Your task to perform on an android device: Search for shimano brake pads on Walmart Image 0: 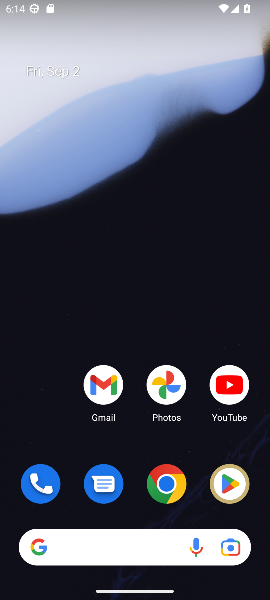
Step 0: click (160, 488)
Your task to perform on an android device: Search for shimano brake pads on Walmart Image 1: 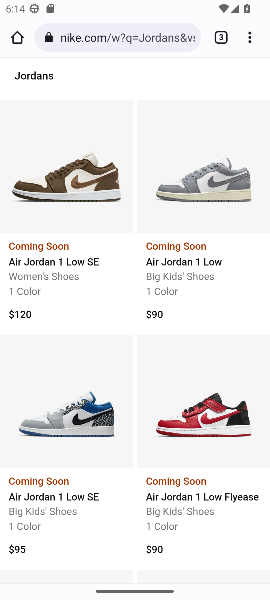
Step 1: click (168, 35)
Your task to perform on an android device: Search for shimano brake pads on Walmart Image 2: 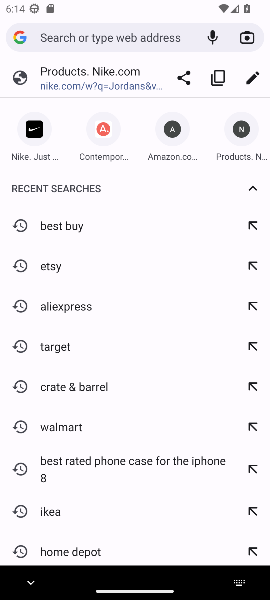
Step 2: type "Walmart"
Your task to perform on an android device: Search for shimano brake pads on Walmart Image 3: 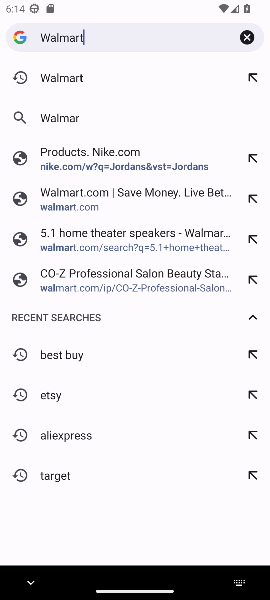
Step 3: press enter
Your task to perform on an android device: Search for shimano brake pads on Walmart Image 4: 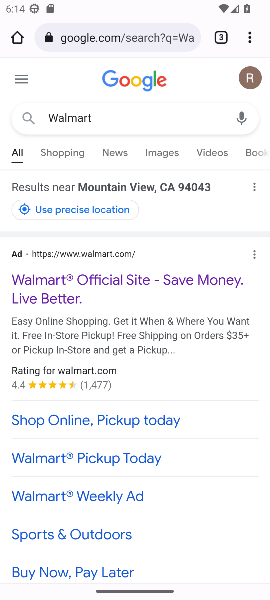
Step 4: drag from (171, 516) to (214, 170)
Your task to perform on an android device: Search for shimano brake pads on Walmart Image 5: 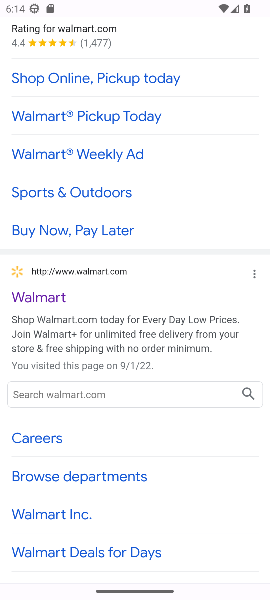
Step 5: click (38, 293)
Your task to perform on an android device: Search for shimano brake pads on Walmart Image 6: 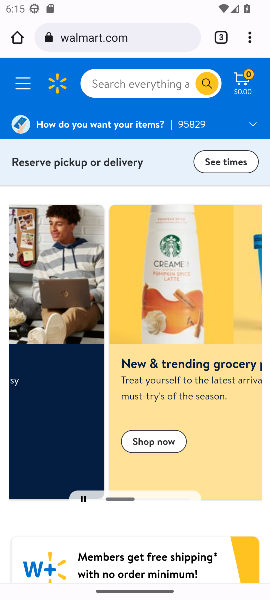
Step 6: click (134, 81)
Your task to perform on an android device: Search for shimano brake pads on Walmart Image 7: 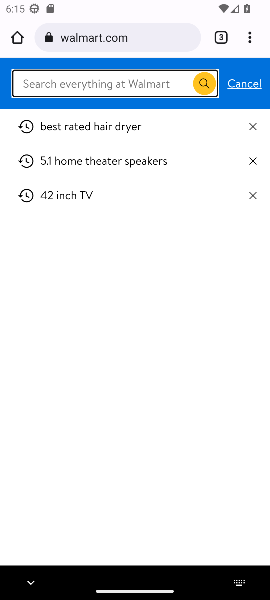
Step 7: type "shimano brake pads"
Your task to perform on an android device: Search for shimano brake pads on Walmart Image 8: 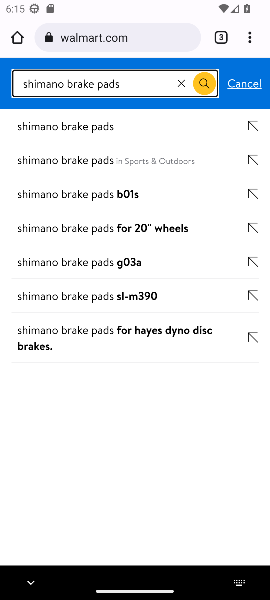
Step 8: click (115, 124)
Your task to perform on an android device: Search for shimano brake pads on Walmart Image 9: 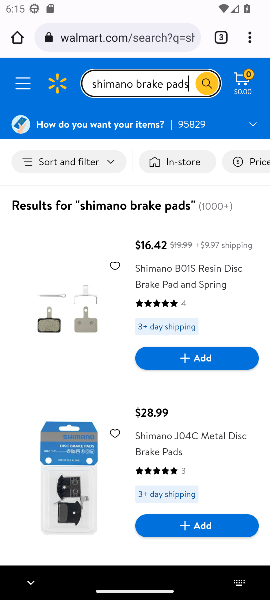
Step 9: task complete